Your task to perform on an android device: change the clock style Image 0: 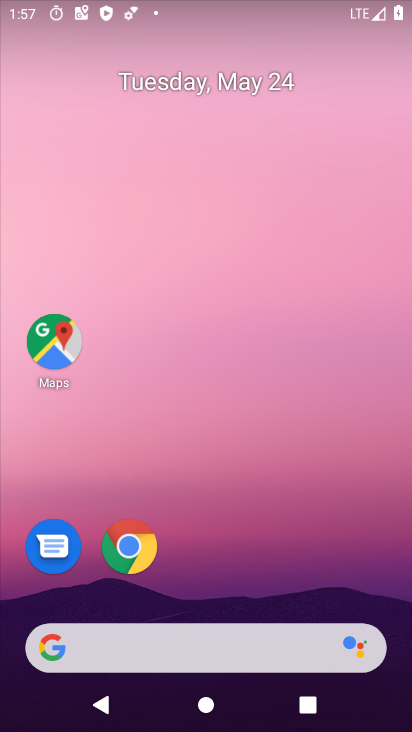
Step 0: drag from (214, 629) to (256, 53)
Your task to perform on an android device: change the clock style Image 1: 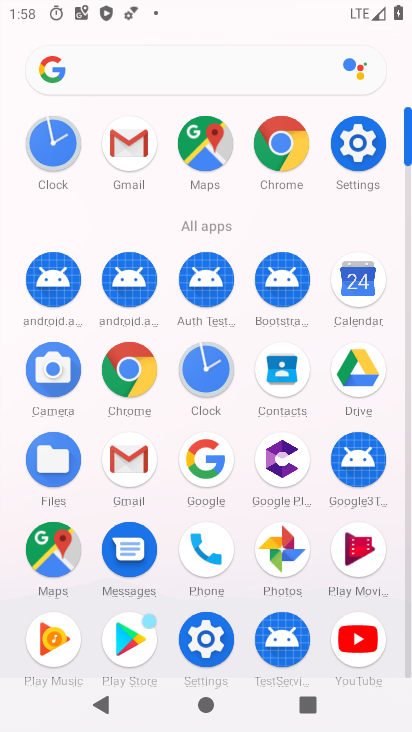
Step 1: click (210, 363)
Your task to perform on an android device: change the clock style Image 2: 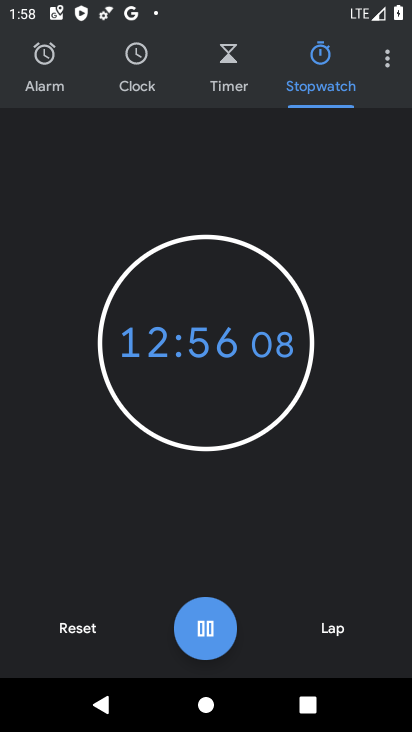
Step 2: click (398, 52)
Your task to perform on an android device: change the clock style Image 3: 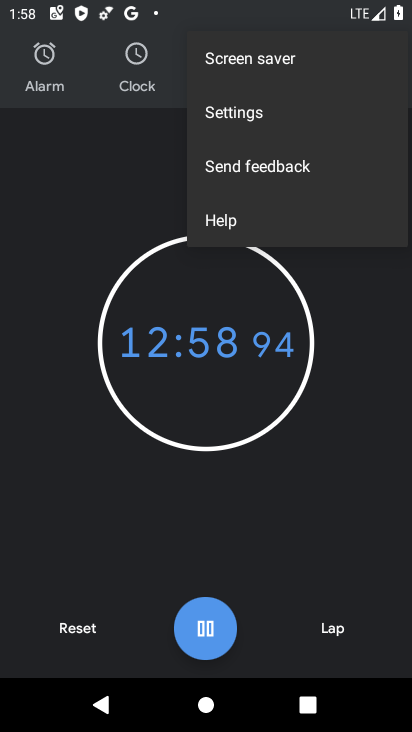
Step 3: click (239, 128)
Your task to perform on an android device: change the clock style Image 4: 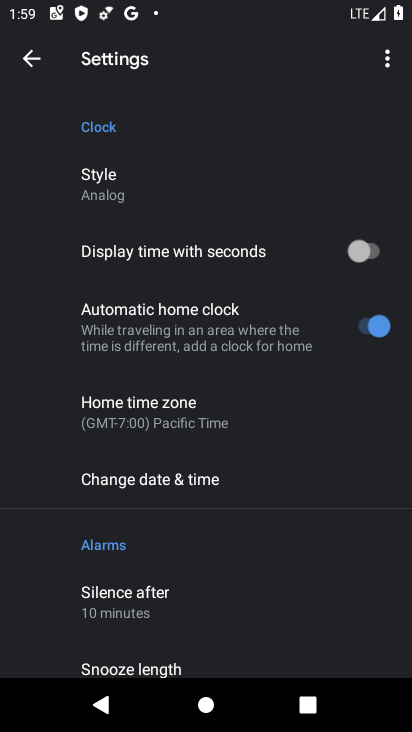
Step 4: click (90, 176)
Your task to perform on an android device: change the clock style Image 5: 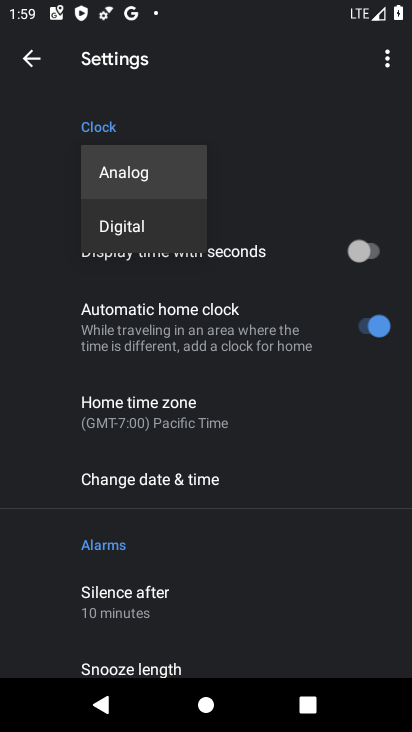
Step 5: click (136, 230)
Your task to perform on an android device: change the clock style Image 6: 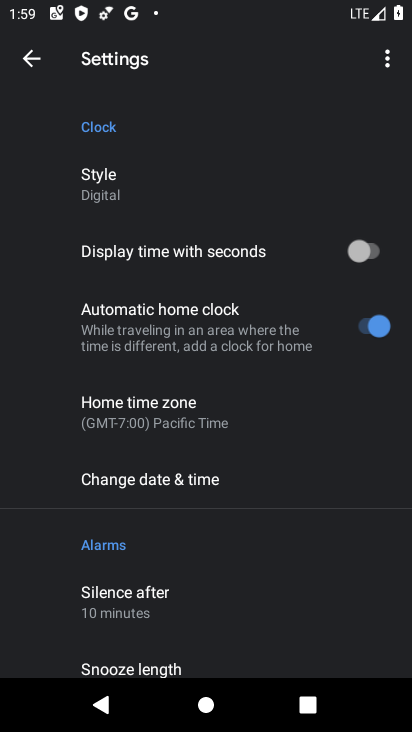
Step 6: task complete